Your task to perform on an android device: turn on the 24-hour format for clock Image 0: 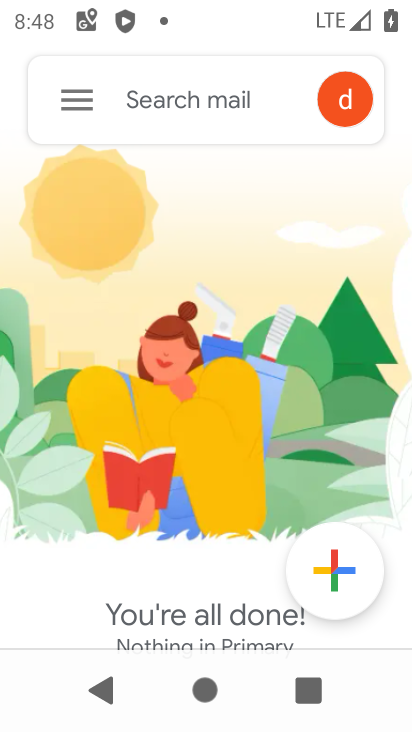
Step 0: press home button
Your task to perform on an android device: turn on the 24-hour format for clock Image 1: 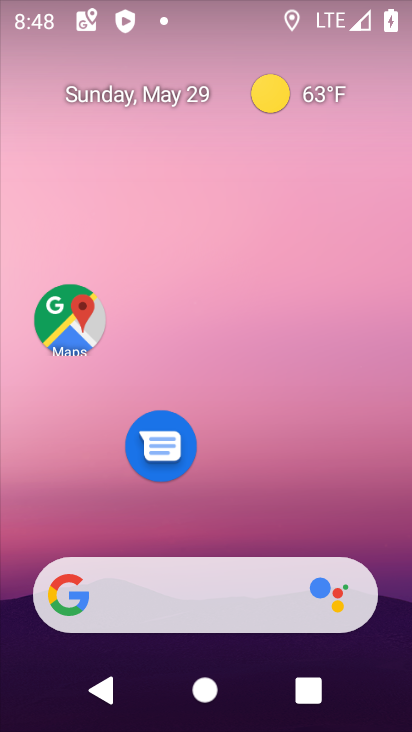
Step 1: drag from (231, 501) to (240, 249)
Your task to perform on an android device: turn on the 24-hour format for clock Image 2: 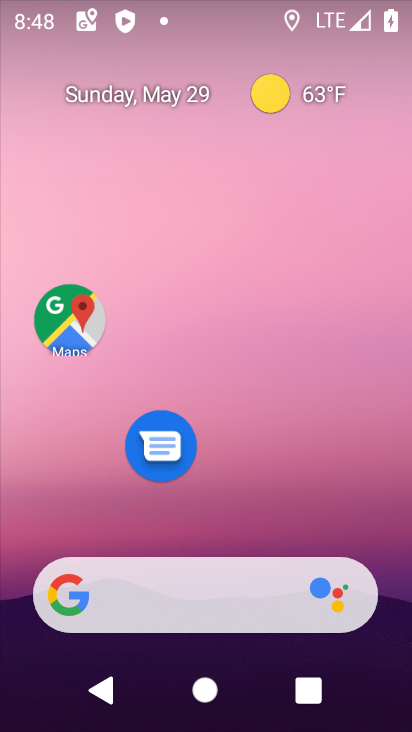
Step 2: drag from (222, 521) to (235, 147)
Your task to perform on an android device: turn on the 24-hour format for clock Image 3: 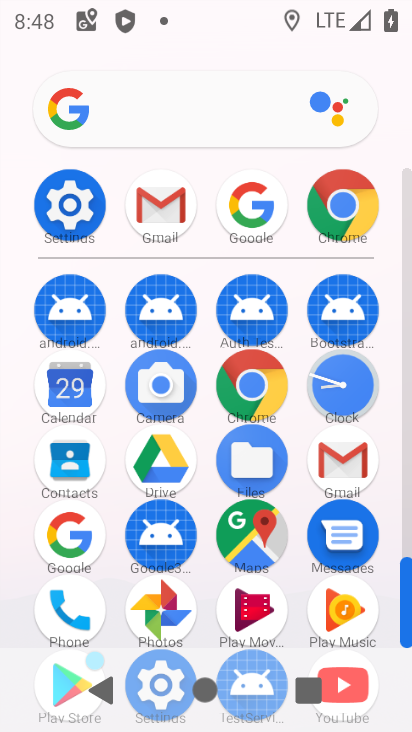
Step 3: click (343, 373)
Your task to perform on an android device: turn on the 24-hour format for clock Image 4: 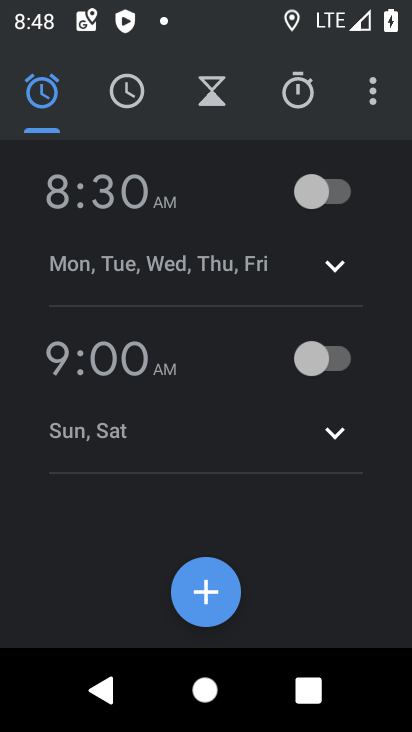
Step 4: click (369, 86)
Your task to perform on an android device: turn on the 24-hour format for clock Image 5: 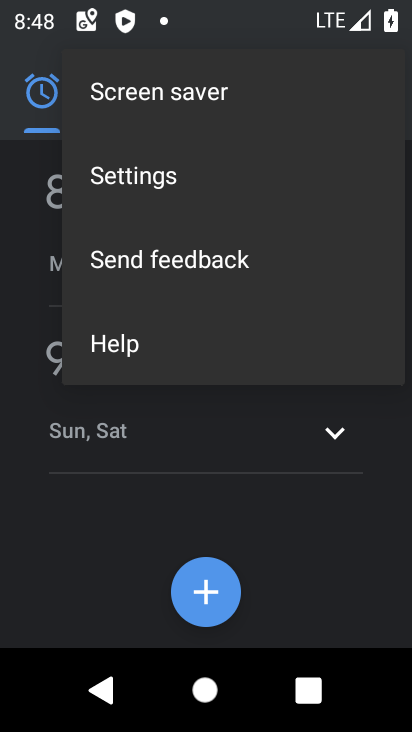
Step 5: click (136, 172)
Your task to perform on an android device: turn on the 24-hour format for clock Image 6: 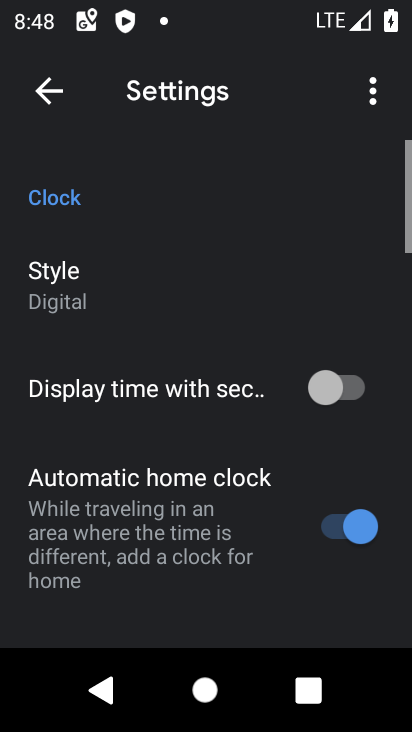
Step 6: drag from (192, 536) to (201, 242)
Your task to perform on an android device: turn on the 24-hour format for clock Image 7: 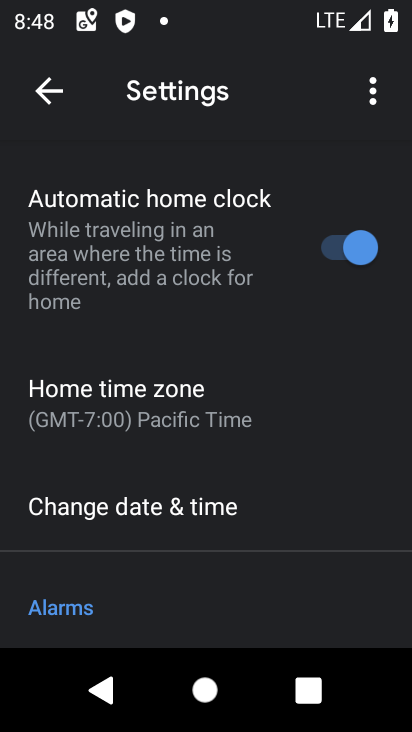
Step 7: click (240, 486)
Your task to perform on an android device: turn on the 24-hour format for clock Image 8: 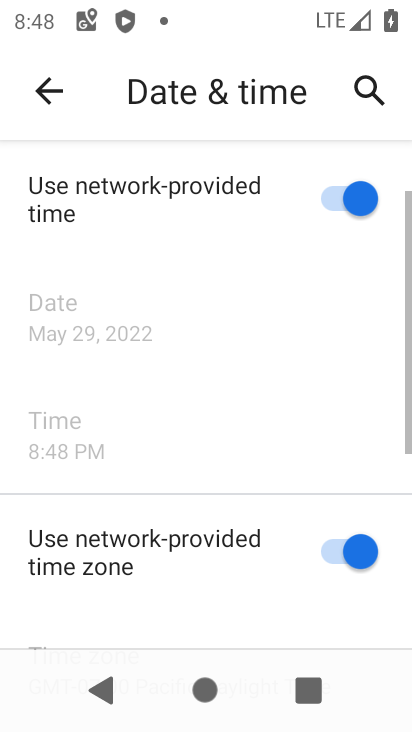
Step 8: drag from (286, 535) to (270, 301)
Your task to perform on an android device: turn on the 24-hour format for clock Image 9: 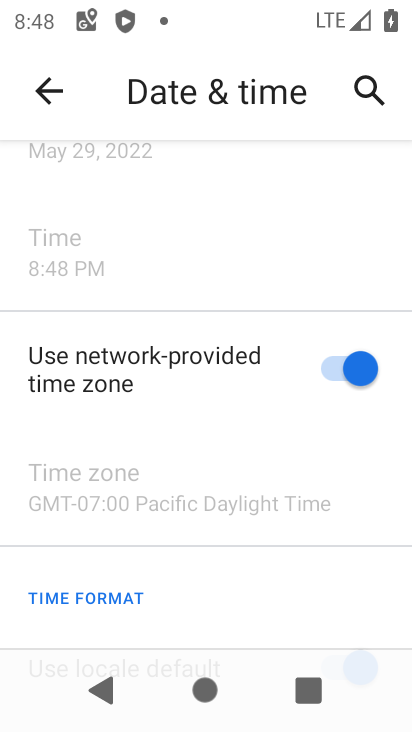
Step 9: drag from (322, 506) to (301, 303)
Your task to perform on an android device: turn on the 24-hour format for clock Image 10: 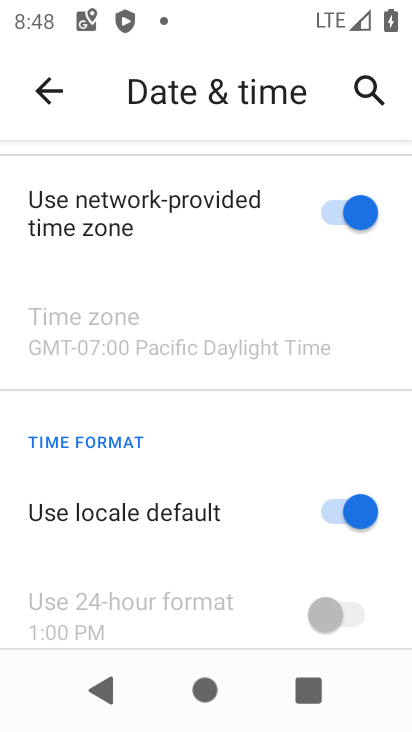
Step 10: click (340, 512)
Your task to perform on an android device: turn on the 24-hour format for clock Image 11: 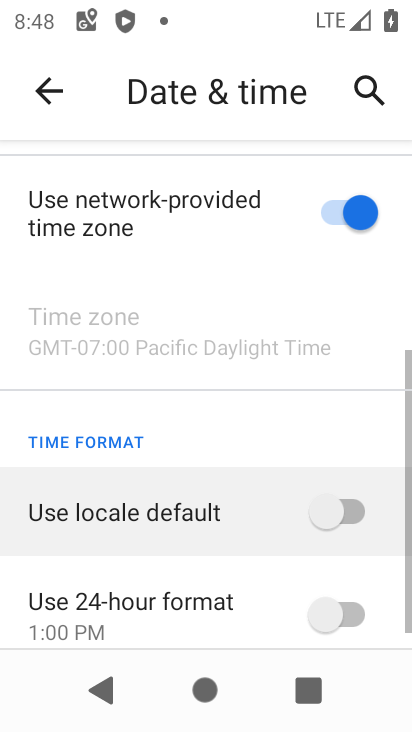
Step 11: click (359, 571)
Your task to perform on an android device: turn on the 24-hour format for clock Image 12: 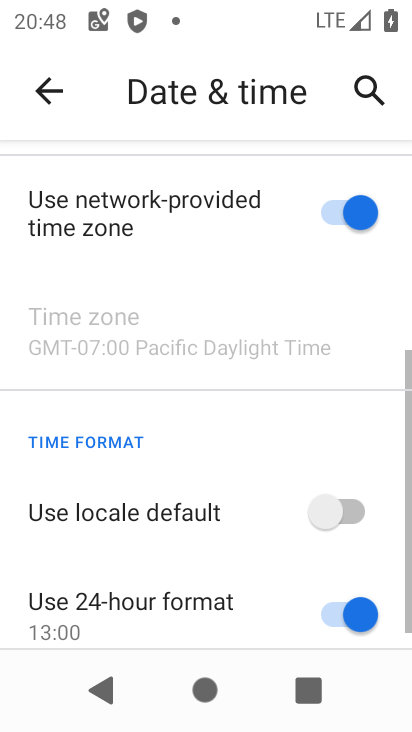
Step 12: click (374, 599)
Your task to perform on an android device: turn on the 24-hour format for clock Image 13: 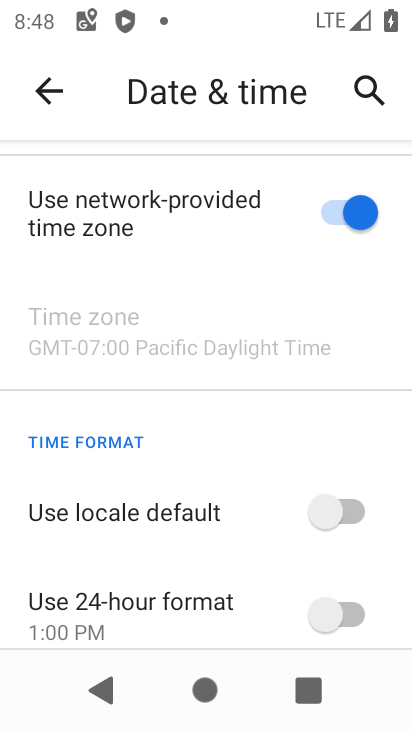
Step 13: click (346, 602)
Your task to perform on an android device: turn on the 24-hour format for clock Image 14: 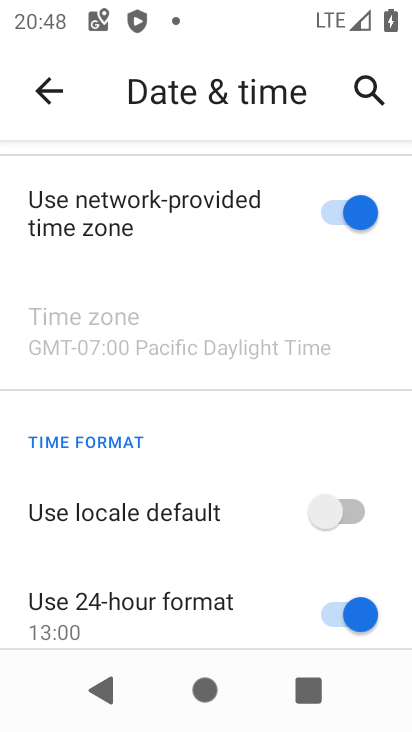
Step 14: task complete